Your task to perform on an android device: delete location history Image 0: 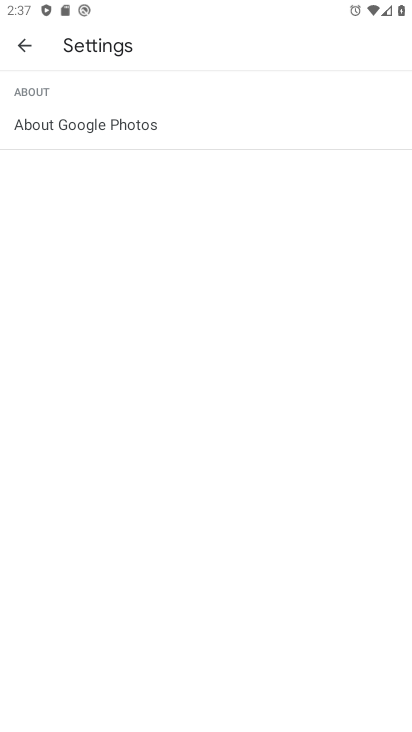
Step 0: press home button
Your task to perform on an android device: delete location history Image 1: 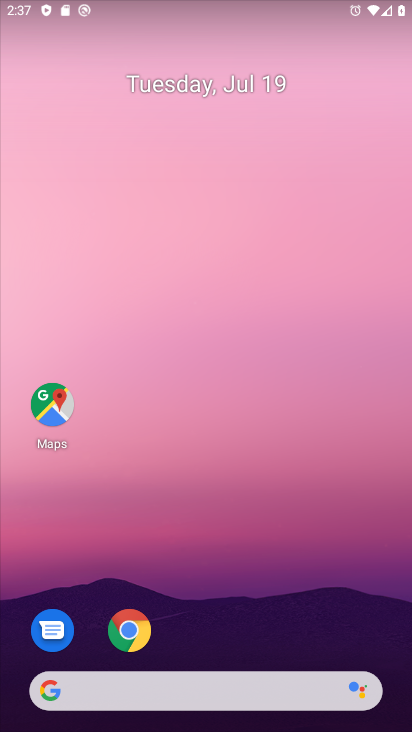
Step 1: click (54, 393)
Your task to perform on an android device: delete location history Image 2: 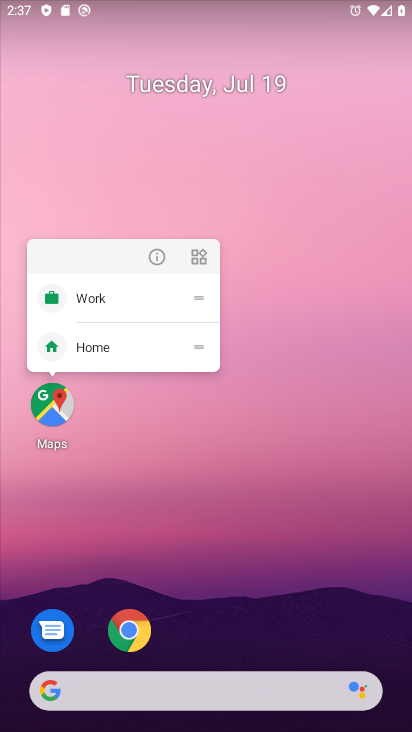
Step 2: click (51, 393)
Your task to perform on an android device: delete location history Image 3: 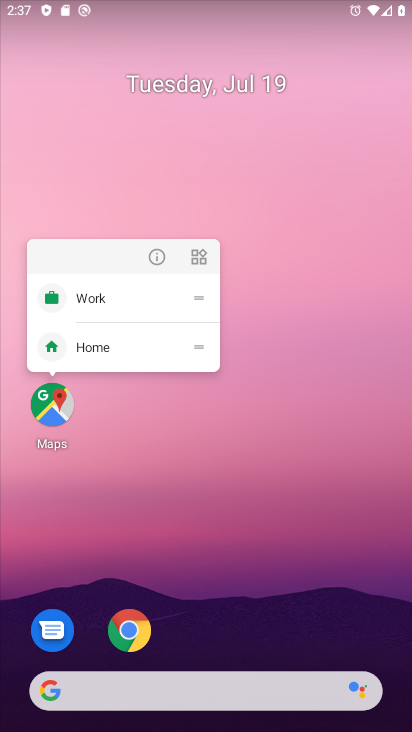
Step 3: click (51, 398)
Your task to perform on an android device: delete location history Image 4: 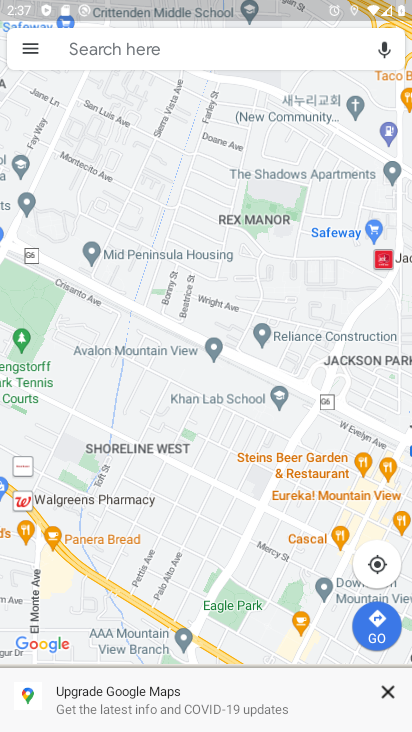
Step 4: click (32, 45)
Your task to perform on an android device: delete location history Image 5: 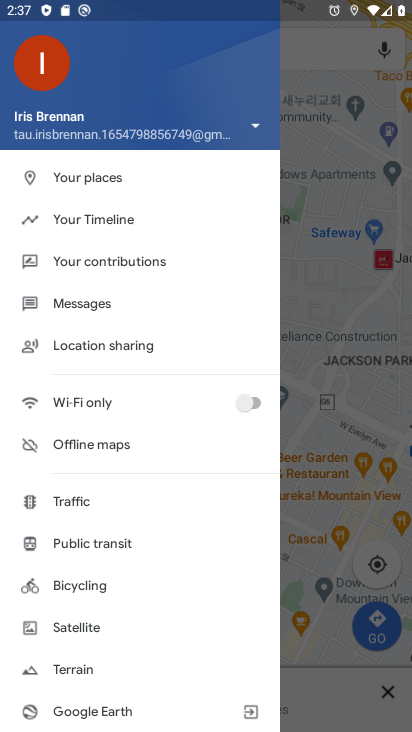
Step 5: click (104, 214)
Your task to perform on an android device: delete location history Image 6: 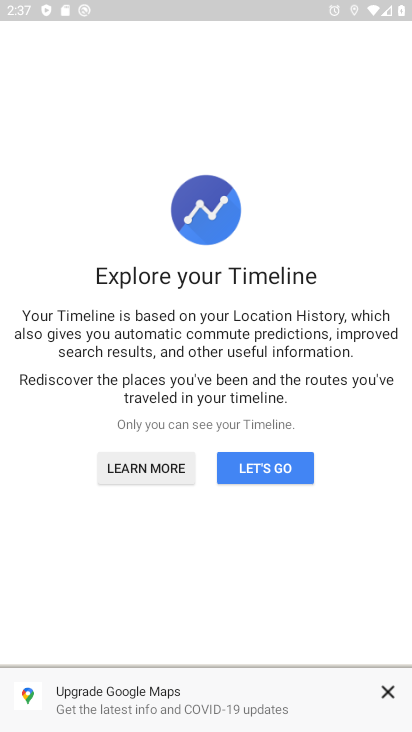
Step 6: click (267, 472)
Your task to perform on an android device: delete location history Image 7: 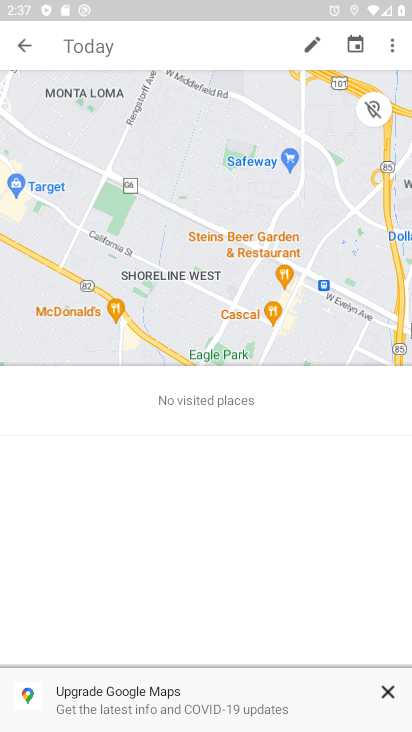
Step 7: click (392, 42)
Your task to perform on an android device: delete location history Image 8: 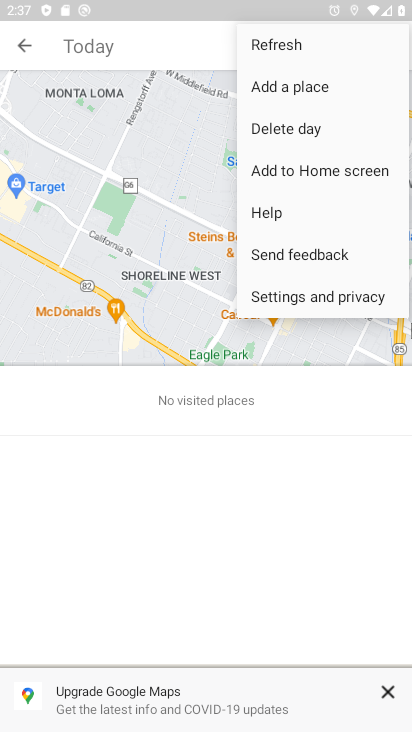
Step 8: click (354, 303)
Your task to perform on an android device: delete location history Image 9: 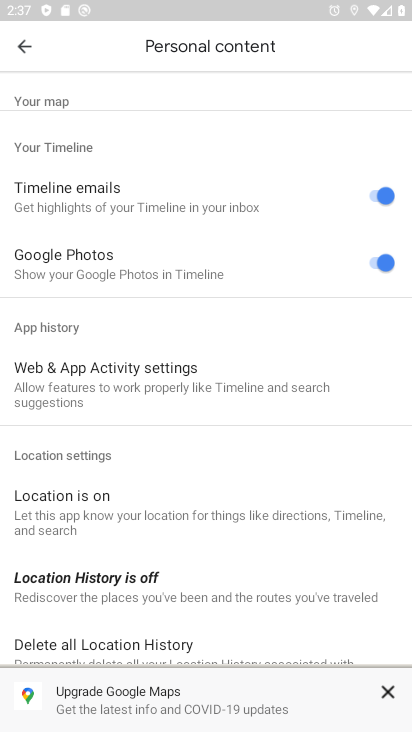
Step 9: drag from (232, 502) to (244, 167)
Your task to perform on an android device: delete location history Image 10: 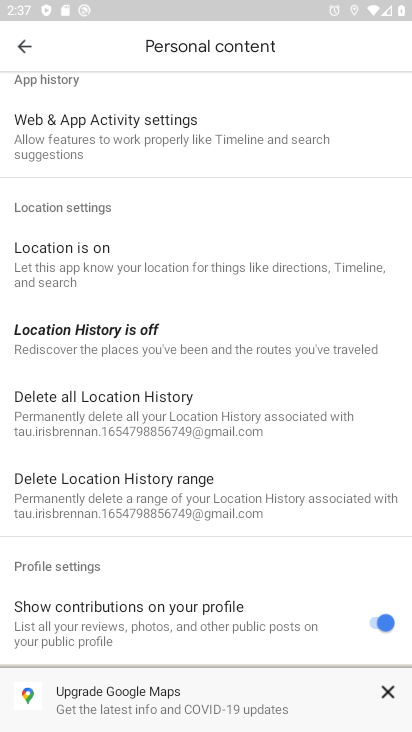
Step 10: click (205, 422)
Your task to perform on an android device: delete location history Image 11: 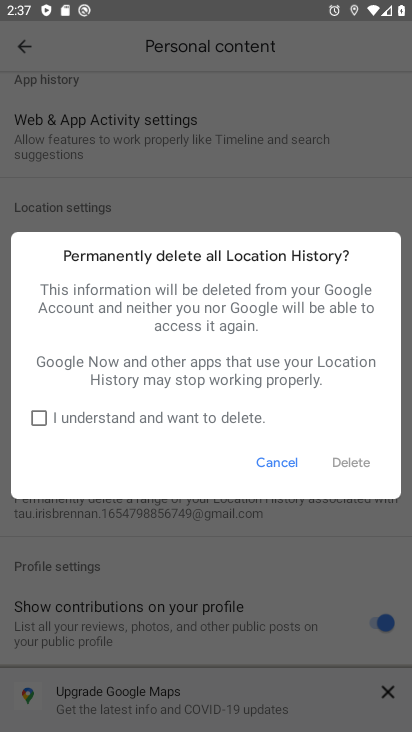
Step 11: click (42, 416)
Your task to perform on an android device: delete location history Image 12: 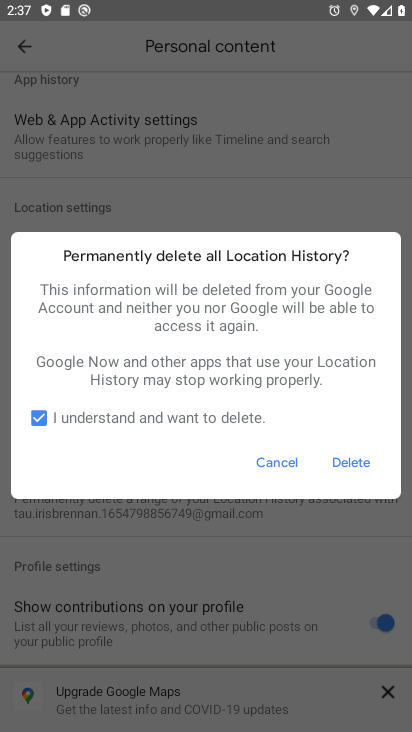
Step 12: click (345, 459)
Your task to perform on an android device: delete location history Image 13: 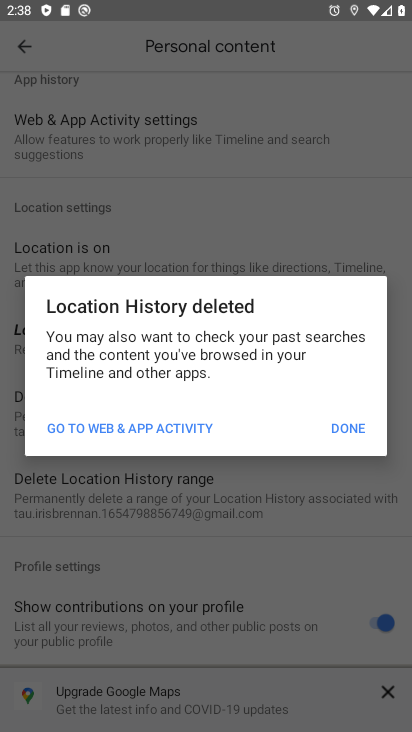
Step 13: click (352, 427)
Your task to perform on an android device: delete location history Image 14: 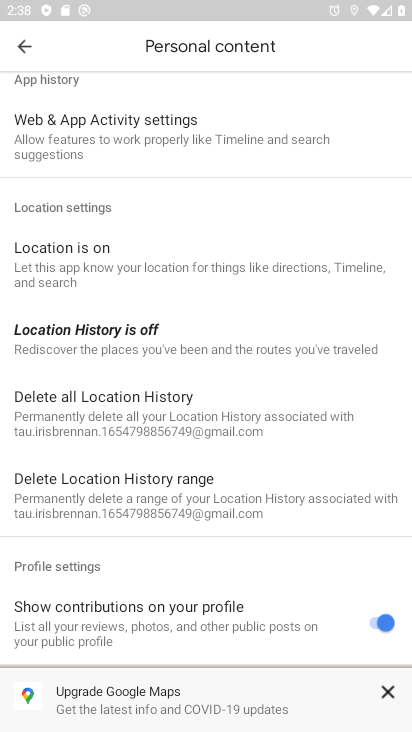
Step 14: task complete